Your task to perform on an android device: set the stopwatch Image 0: 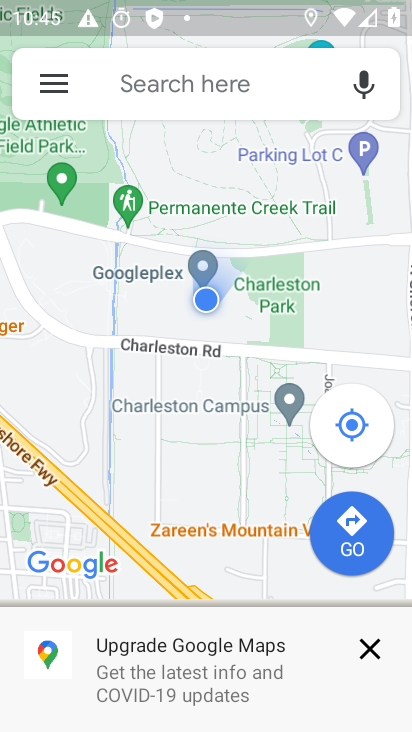
Step 0: press home button
Your task to perform on an android device: set the stopwatch Image 1: 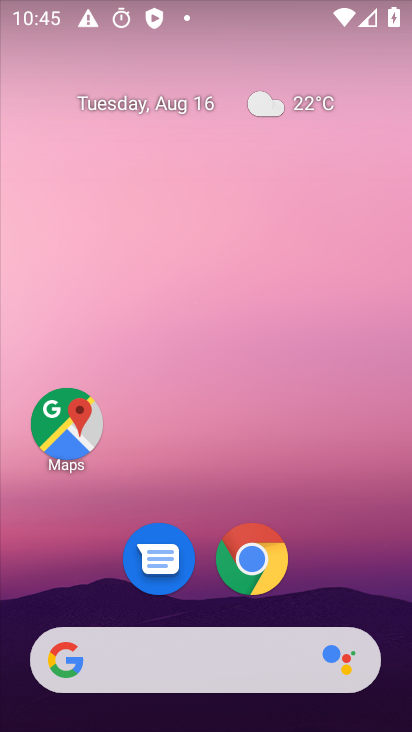
Step 1: drag from (204, 609) to (215, 43)
Your task to perform on an android device: set the stopwatch Image 2: 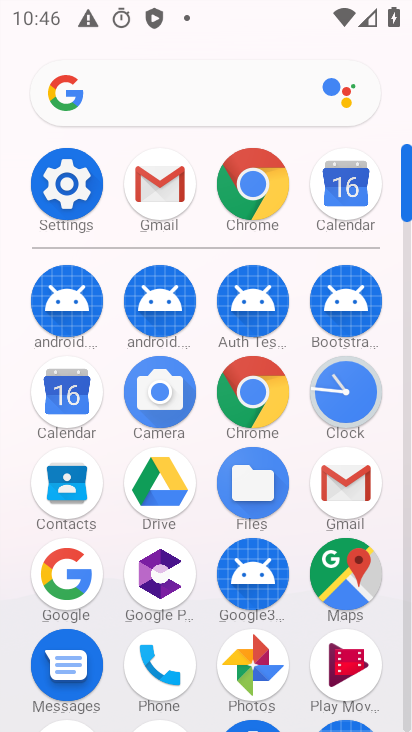
Step 2: click (346, 411)
Your task to perform on an android device: set the stopwatch Image 3: 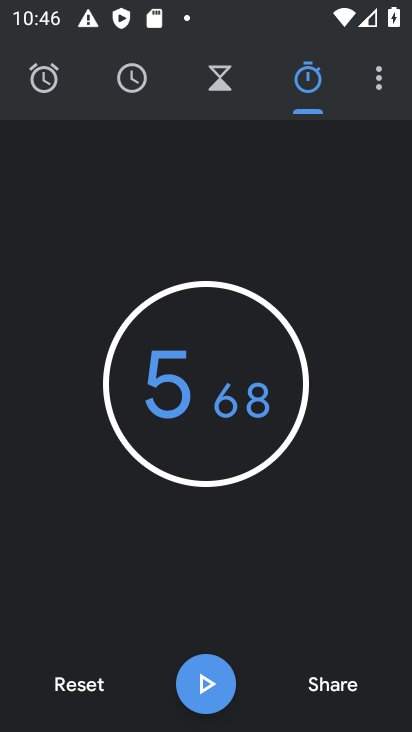
Step 3: click (100, 685)
Your task to perform on an android device: set the stopwatch Image 4: 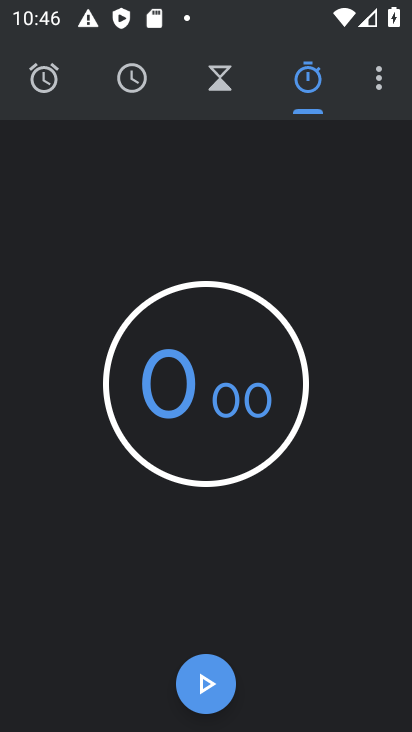
Step 4: click (197, 698)
Your task to perform on an android device: set the stopwatch Image 5: 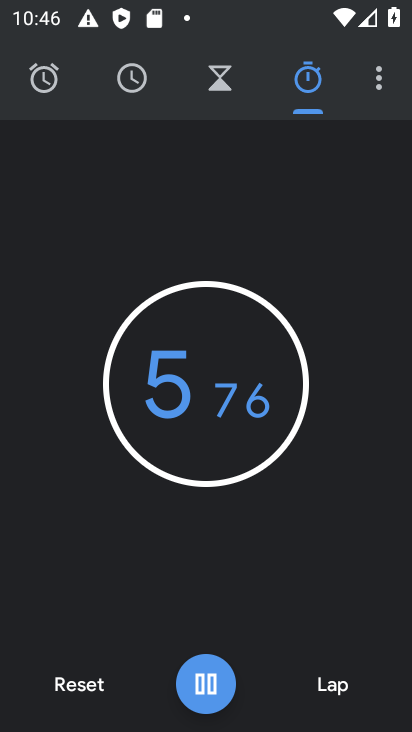
Step 5: click (197, 698)
Your task to perform on an android device: set the stopwatch Image 6: 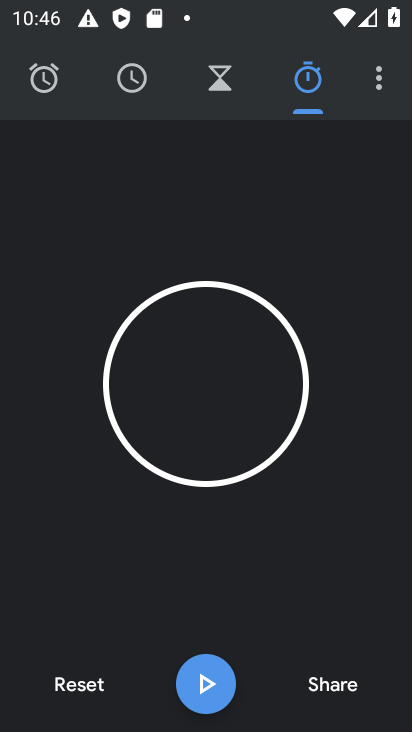
Step 6: task complete